Your task to perform on an android device: turn pop-ups off in chrome Image 0: 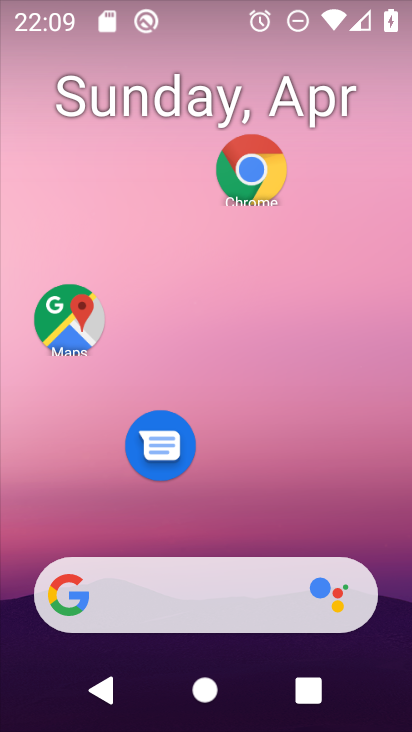
Step 0: click (251, 168)
Your task to perform on an android device: turn pop-ups off in chrome Image 1: 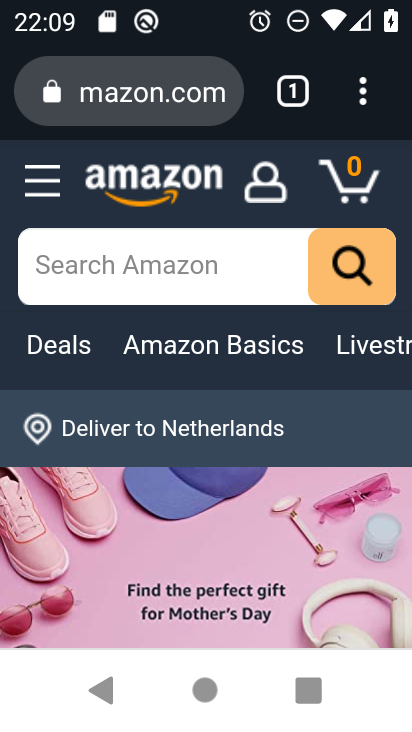
Step 1: click (358, 86)
Your task to perform on an android device: turn pop-ups off in chrome Image 2: 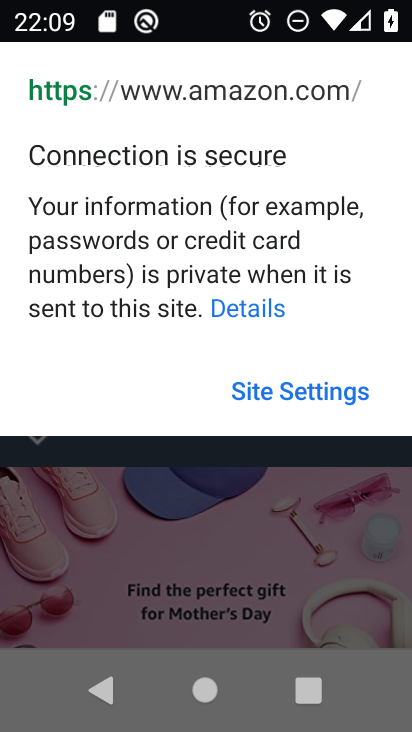
Step 2: press back button
Your task to perform on an android device: turn pop-ups off in chrome Image 3: 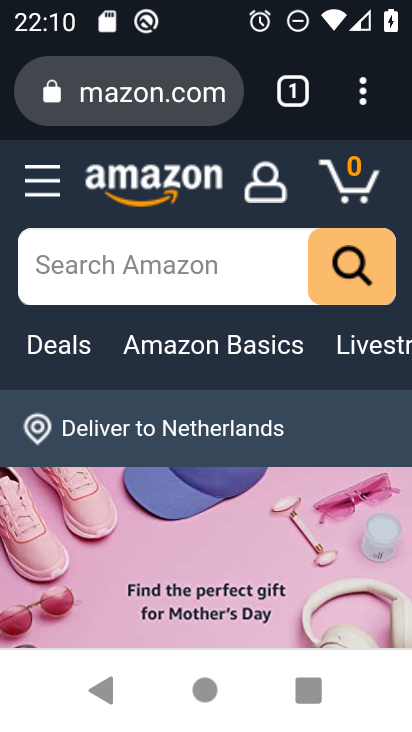
Step 3: click (357, 88)
Your task to perform on an android device: turn pop-ups off in chrome Image 4: 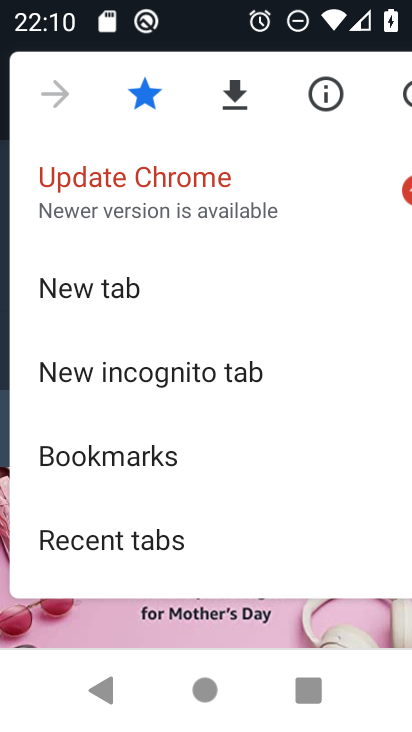
Step 4: drag from (279, 545) to (251, 116)
Your task to perform on an android device: turn pop-ups off in chrome Image 5: 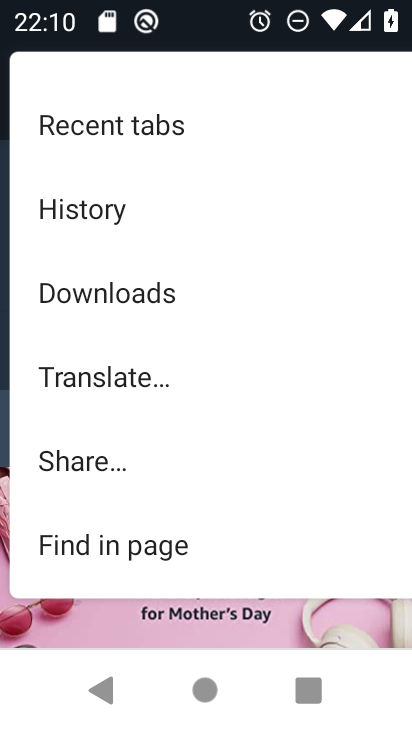
Step 5: drag from (234, 498) to (211, 168)
Your task to perform on an android device: turn pop-ups off in chrome Image 6: 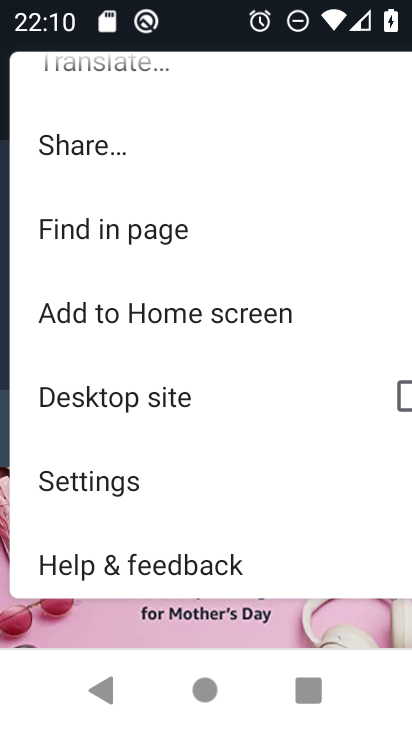
Step 6: click (168, 519)
Your task to perform on an android device: turn pop-ups off in chrome Image 7: 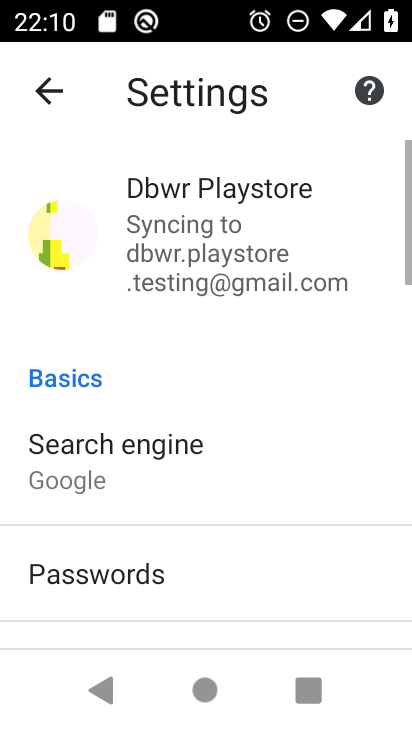
Step 7: drag from (168, 518) to (184, 139)
Your task to perform on an android device: turn pop-ups off in chrome Image 8: 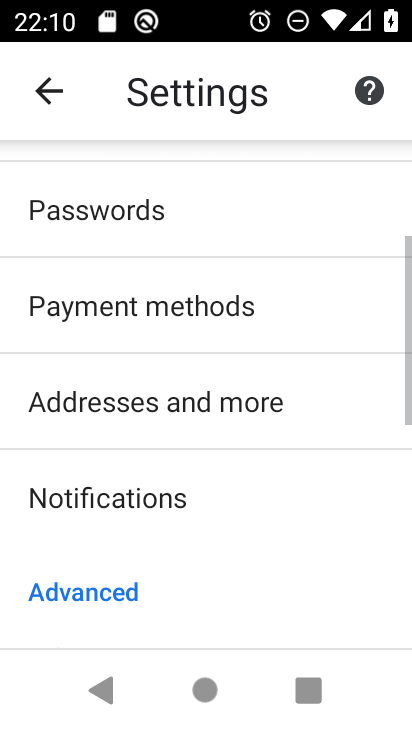
Step 8: drag from (190, 492) to (223, 77)
Your task to perform on an android device: turn pop-ups off in chrome Image 9: 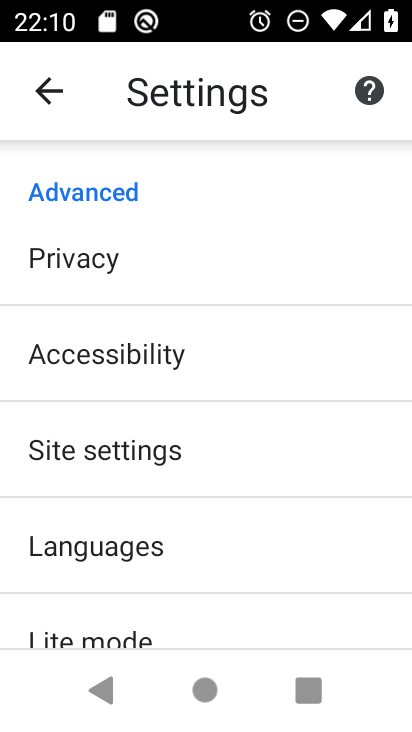
Step 9: click (154, 456)
Your task to perform on an android device: turn pop-ups off in chrome Image 10: 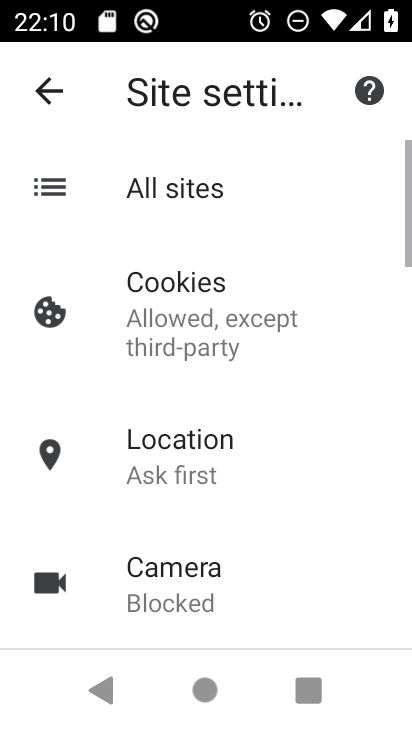
Step 10: drag from (293, 551) to (307, 57)
Your task to perform on an android device: turn pop-ups off in chrome Image 11: 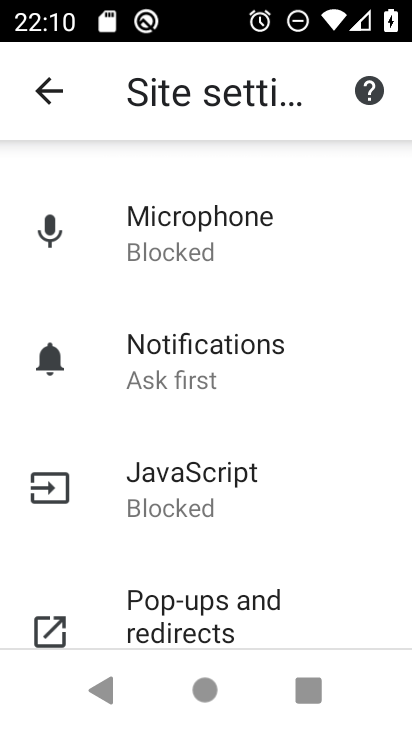
Step 11: drag from (230, 605) to (242, 351)
Your task to perform on an android device: turn pop-ups off in chrome Image 12: 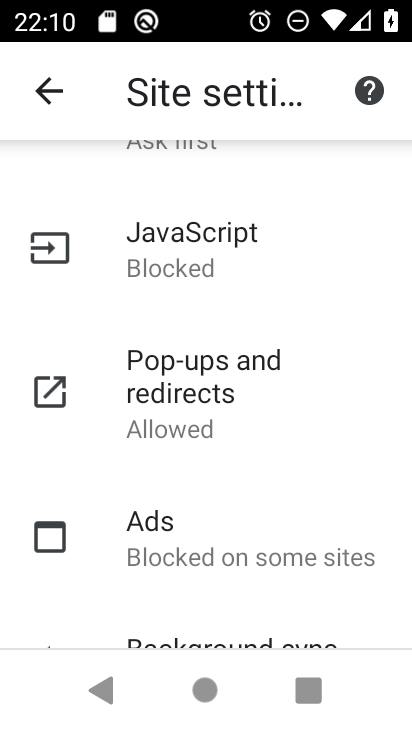
Step 12: click (190, 387)
Your task to perform on an android device: turn pop-ups off in chrome Image 13: 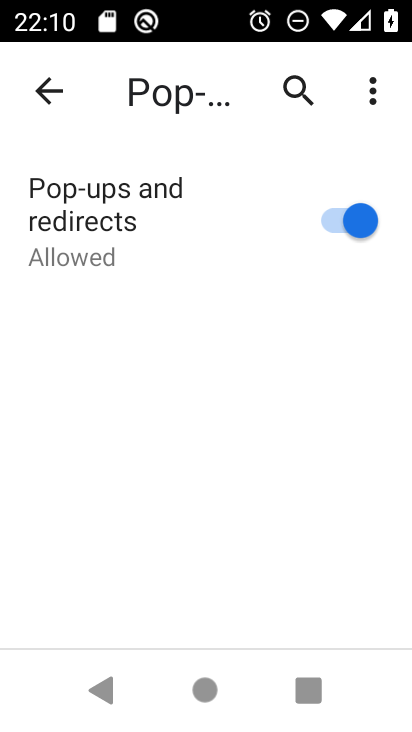
Step 13: click (364, 204)
Your task to perform on an android device: turn pop-ups off in chrome Image 14: 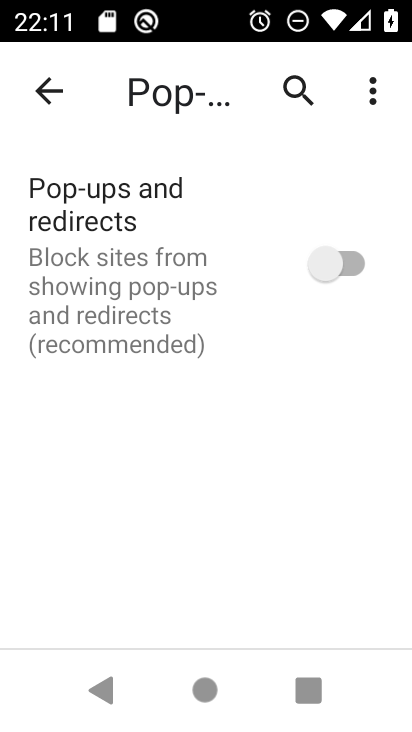
Step 14: task complete